Your task to perform on an android device: Open Yahoo.com Image 0: 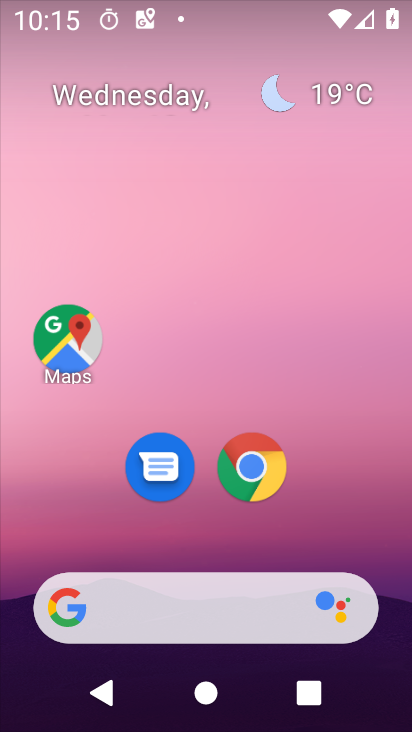
Step 0: click (265, 471)
Your task to perform on an android device: Open Yahoo.com Image 1: 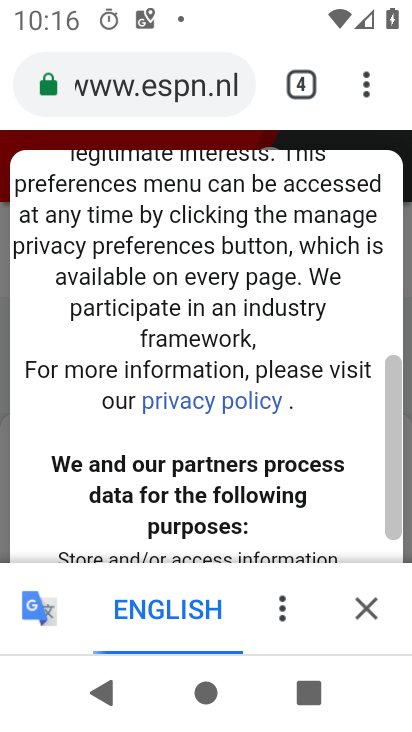
Step 1: click (292, 83)
Your task to perform on an android device: Open Yahoo.com Image 2: 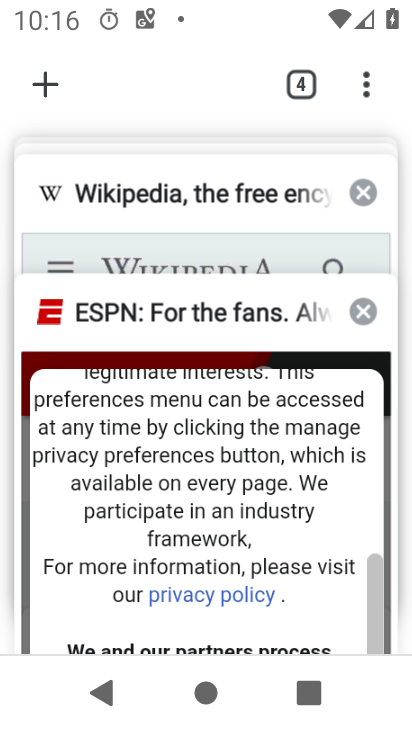
Step 2: click (34, 69)
Your task to perform on an android device: Open Yahoo.com Image 3: 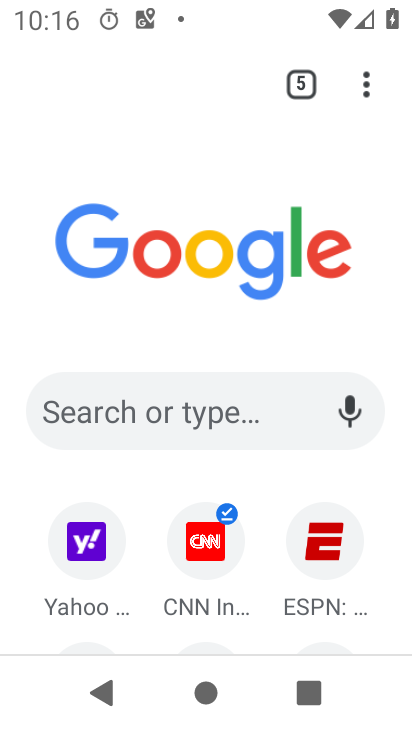
Step 3: click (93, 550)
Your task to perform on an android device: Open Yahoo.com Image 4: 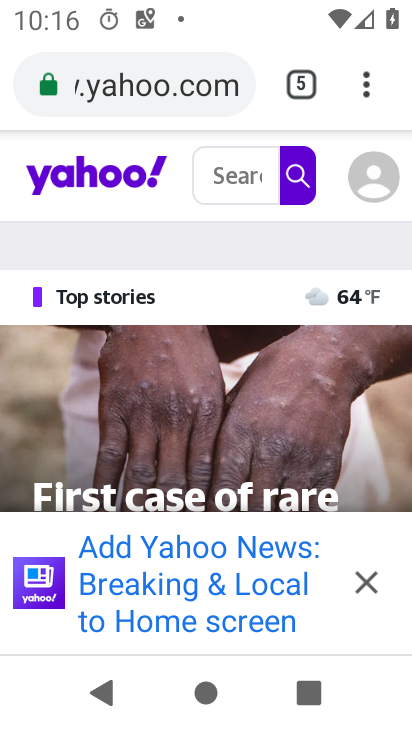
Step 4: task complete